Your task to perform on an android device: manage bookmarks in the chrome app Image 0: 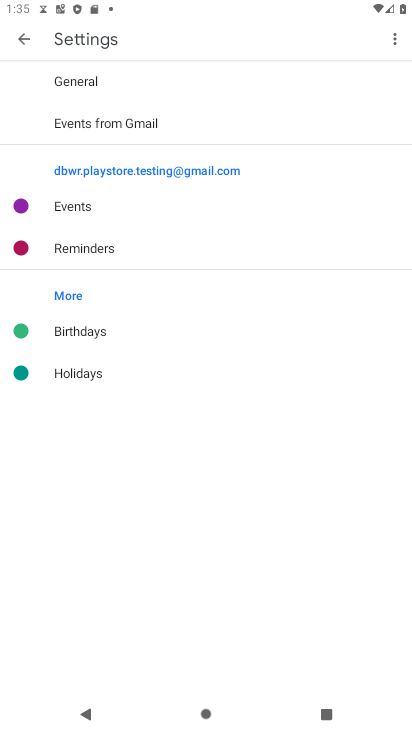
Step 0: press back button
Your task to perform on an android device: manage bookmarks in the chrome app Image 1: 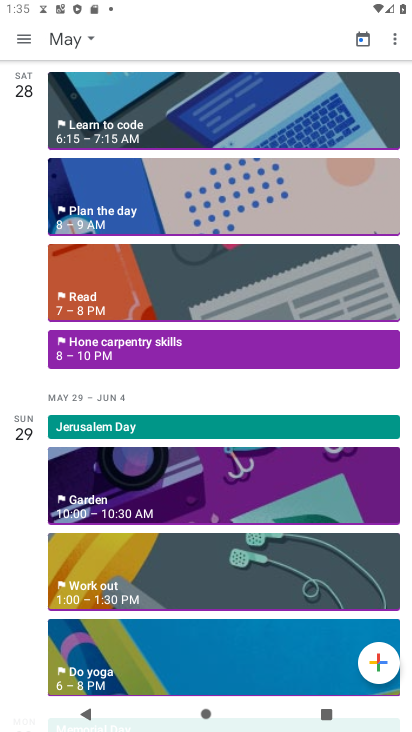
Step 1: press back button
Your task to perform on an android device: manage bookmarks in the chrome app Image 2: 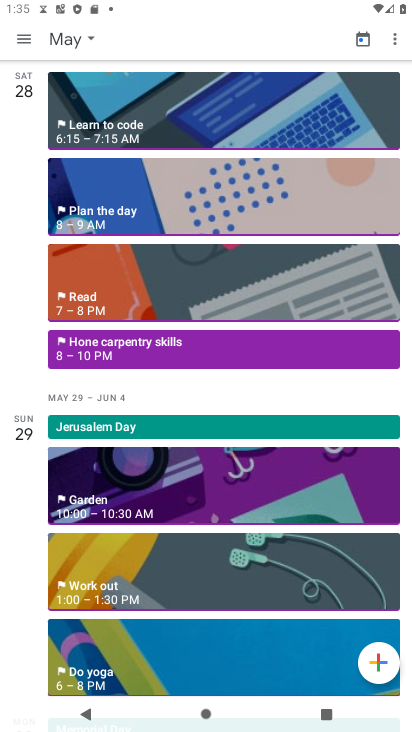
Step 2: press back button
Your task to perform on an android device: manage bookmarks in the chrome app Image 3: 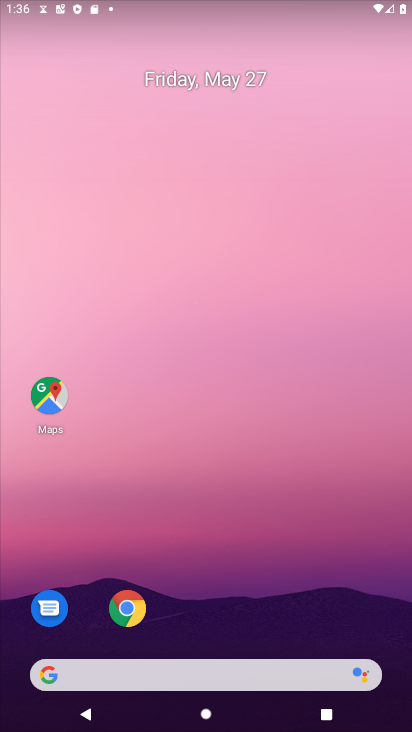
Step 3: press back button
Your task to perform on an android device: manage bookmarks in the chrome app Image 4: 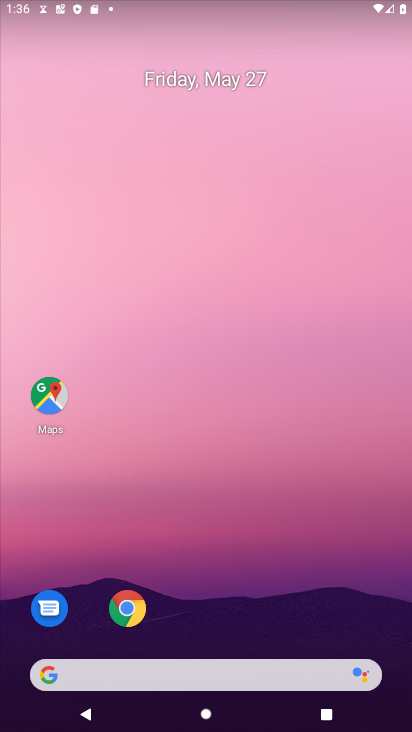
Step 4: click (109, 609)
Your task to perform on an android device: manage bookmarks in the chrome app Image 5: 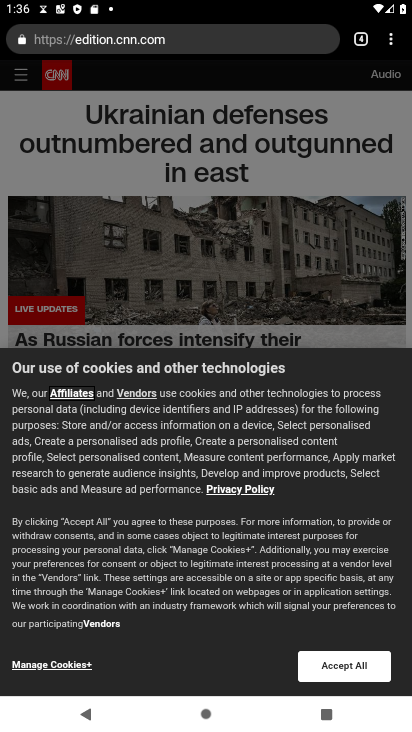
Step 5: drag from (396, 41) to (263, 154)
Your task to perform on an android device: manage bookmarks in the chrome app Image 6: 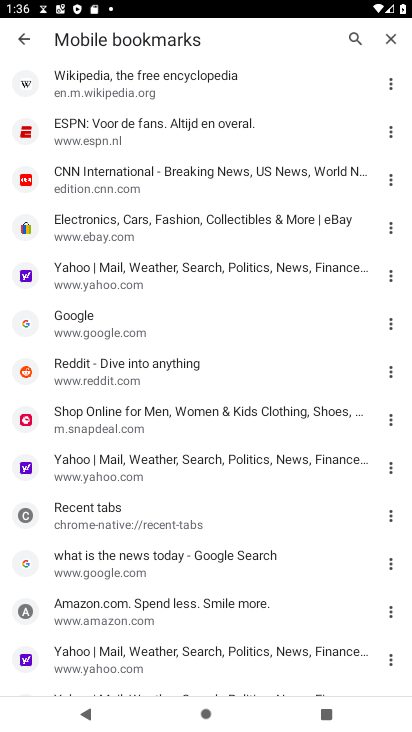
Step 6: click (390, 129)
Your task to perform on an android device: manage bookmarks in the chrome app Image 7: 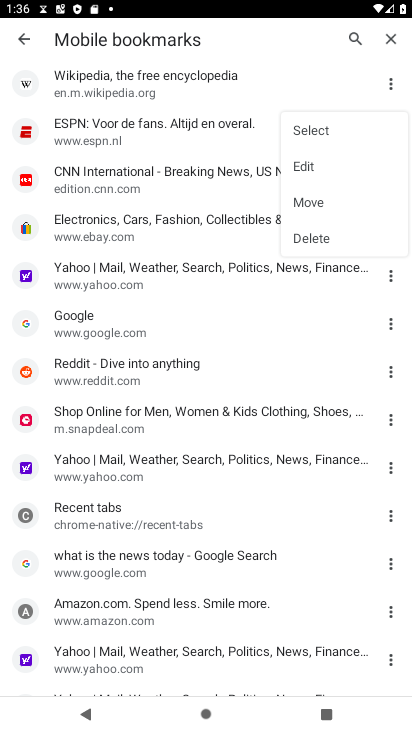
Step 7: click (317, 244)
Your task to perform on an android device: manage bookmarks in the chrome app Image 8: 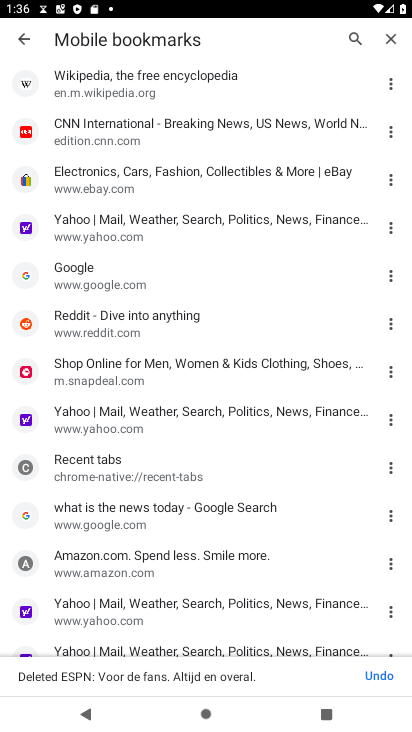
Step 8: task complete